Your task to perform on an android device: What is the news today? Image 0: 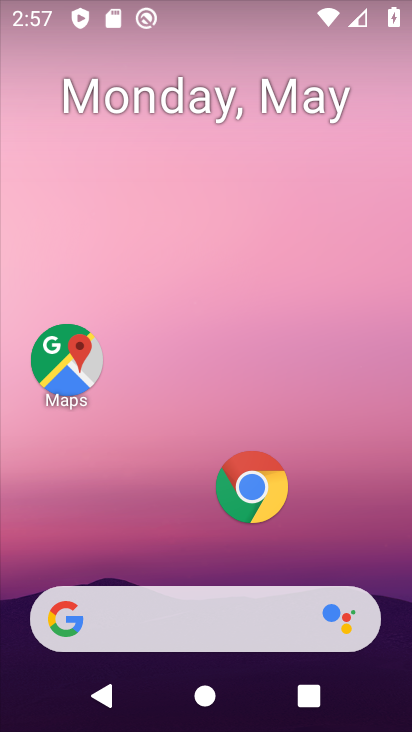
Step 0: click (181, 601)
Your task to perform on an android device: What is the news today? Image 1: 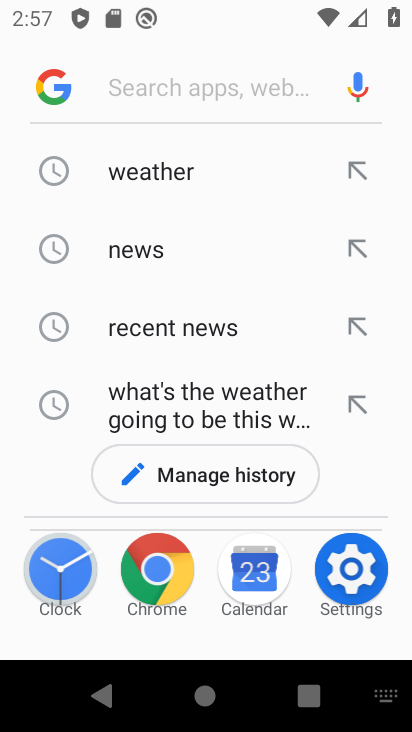
Step 1: type "what is the news today"
Your task to perform on an android device: What is the news today? Image 2: 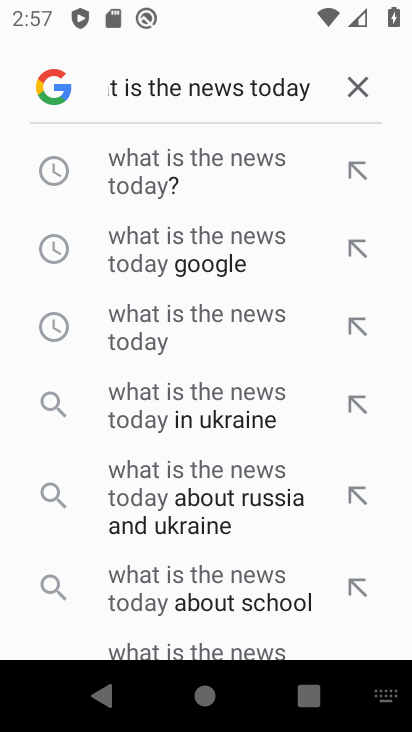
Step 2: click (141, 180)
Your task to perform on an android device: What is the news today? Image 3: 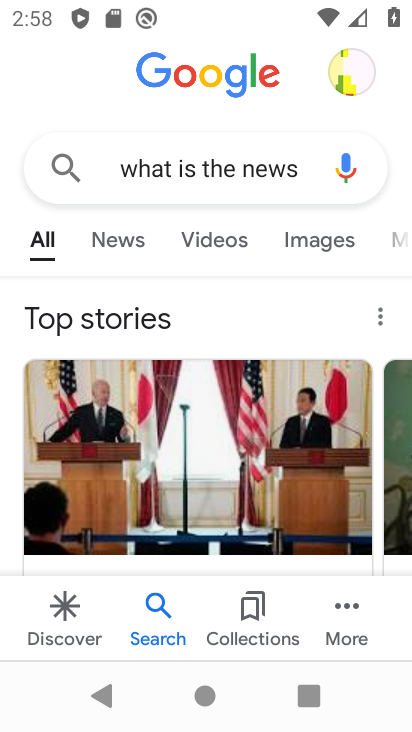
Step 3: click (124, 230)
Your task to perform on an android device: What is the news today? Image 4: 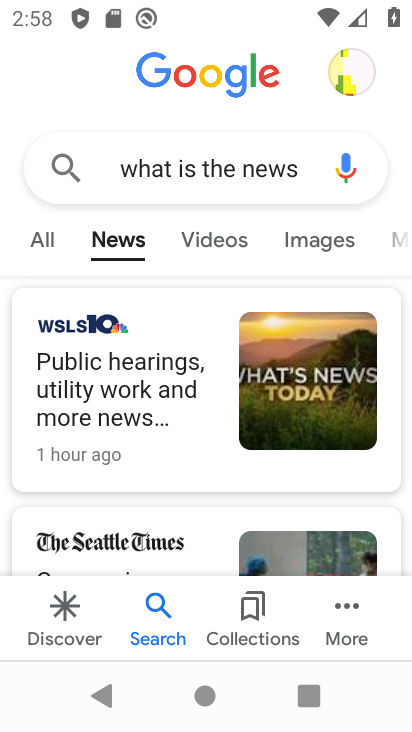
Step 4: task complete